Your task to perform on an android device: Go to location settings Image 0: 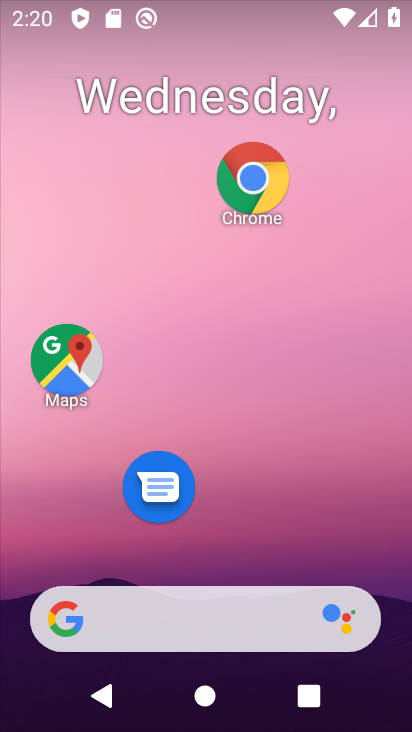
Step 0: drag from (300, 577) to (268, 0)
Your task to perform on an android device: Go to location settings Image 1: 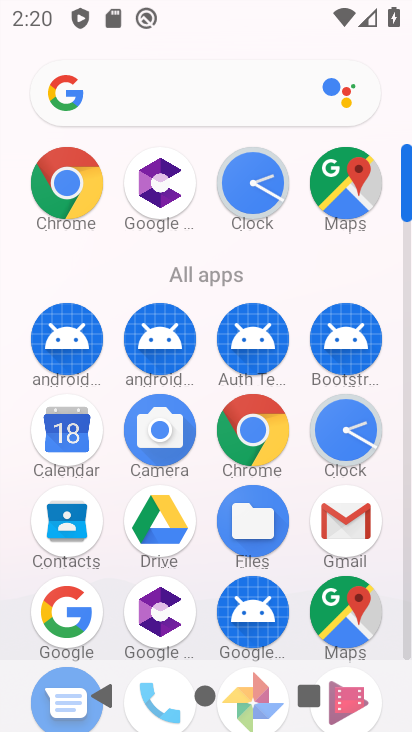
Step 1: drag from (204, 577) to (146, 246)
Your task to perform on an android device: Go to location settings Image 2: 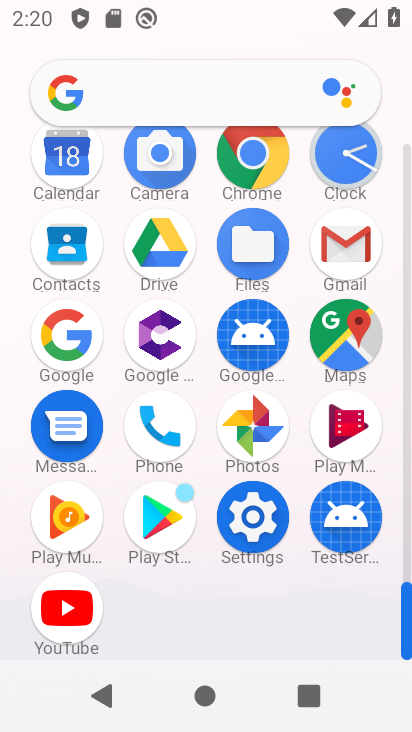
Step 2: click (254, 523)
Your task to perform on an android device: Go to location settings Image 3: 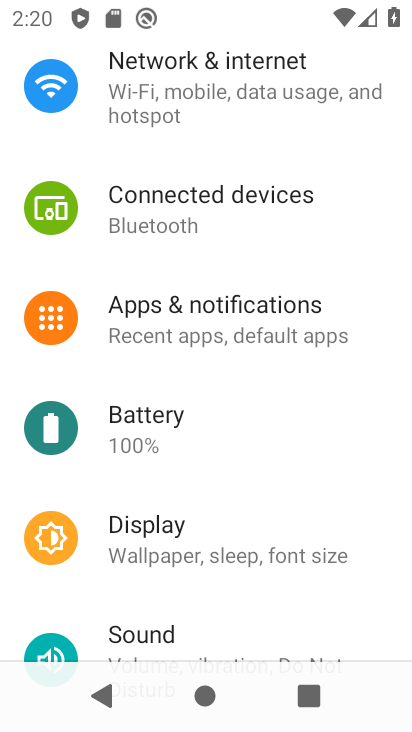
Step 3: drag from (199, 542) to (191, 369)
Your task to perform on an android device: Go to location settings Image 4: 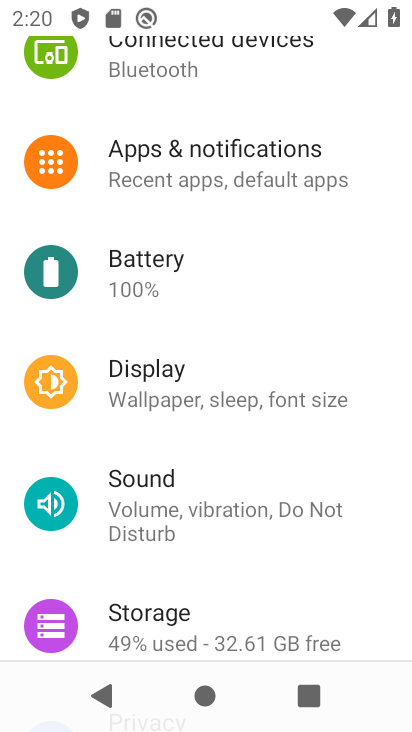
Step 4: drag from (179, 511) to (179, 348)
Your task to perform on an android device: Go to location settings Image 5: 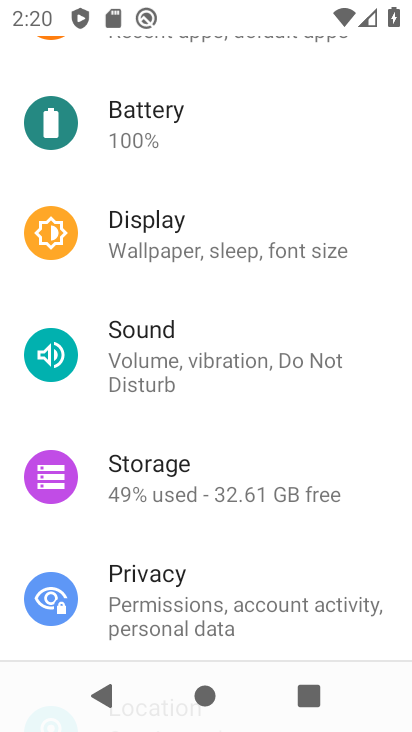
Step 5: drag from (194, 525) to (190, 330)
Your task to perform on an android device: Go to location settings Image 6: 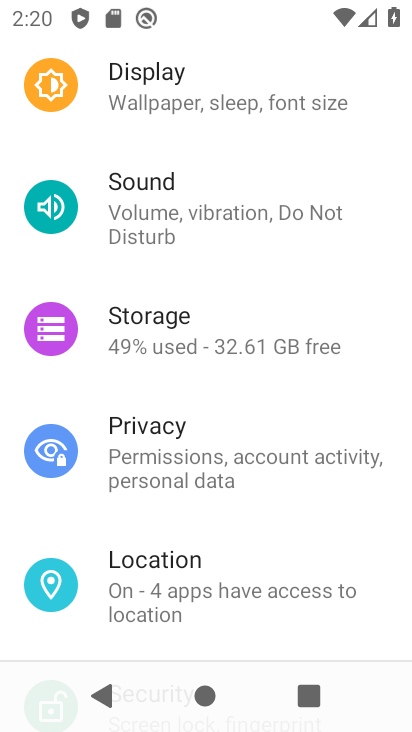
Step 6: click (189, 588)
Your task to perform on an android device: Go to location settings Image 7: 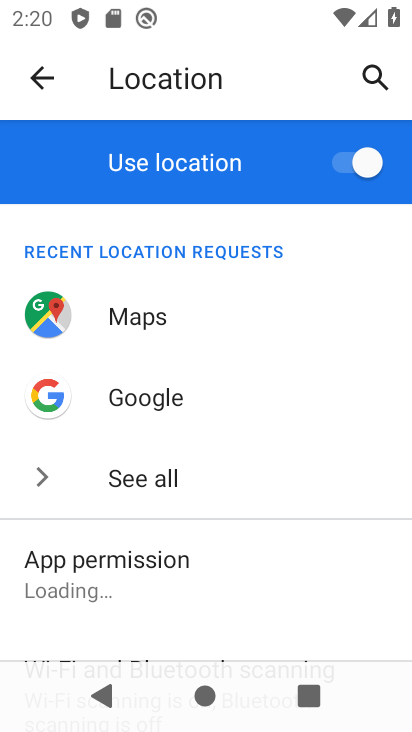
Step 7: task complete